Your task to perform on an android device: Open network settings Image 0: 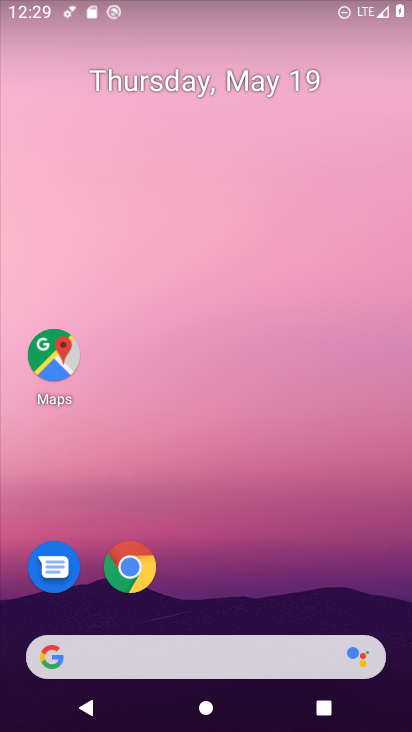
Step 0: drag from (286, 532) to (287, 46)
Your task to perform on an android device: Open network settings Image 1: 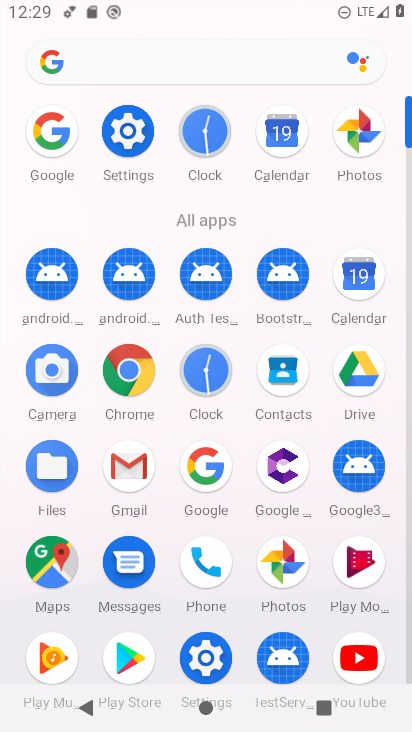
Step 1: click (138, 137)
Your task to perform on an android device: Open network settings Image 2: 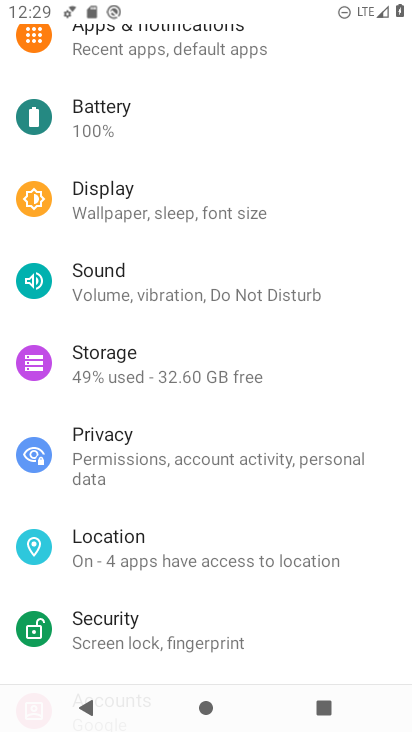
Step 2: drag from (231, 153) to (290, 418)
Your task to perform on an android device: Open network settings Image 3: 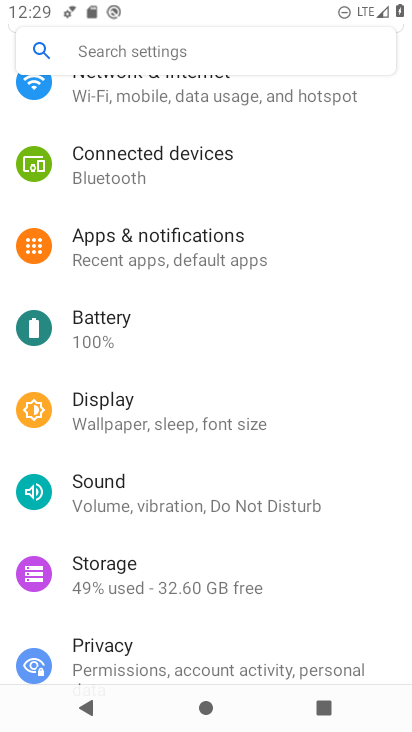
Step 3: drag from (239, 361) to (242, 458)
Your task to perform on an android device: Open network settings Image 4: 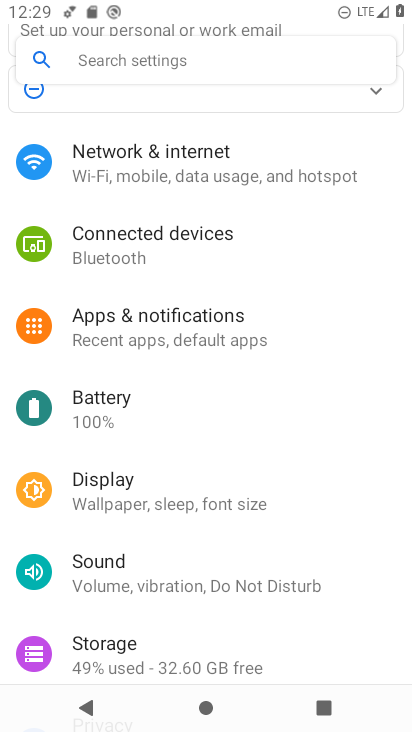
Step 4: click (218, 164)
Your task to perform on an android device: Open network settings Image 5: 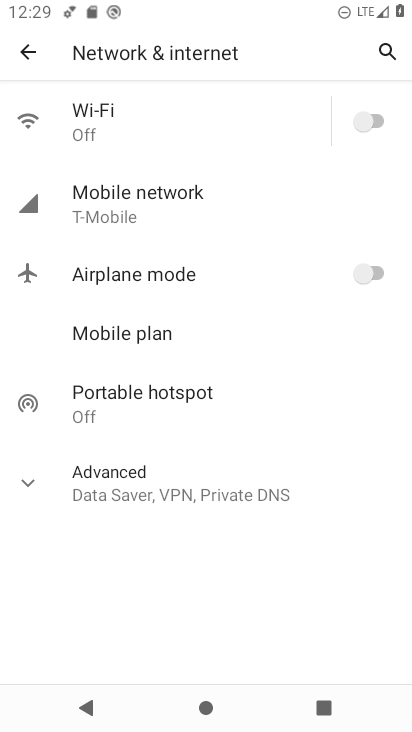
Step 5: task complete